Your task to perform on an android device: allow notifications from all sites in the chrome app Image 0: 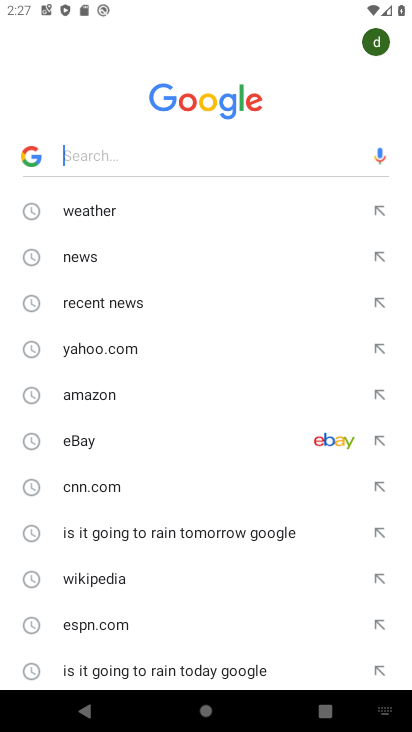
Step 0: press home button
Your task to perform on an android device: allow notifications from all sites in the chrome app Image 1: 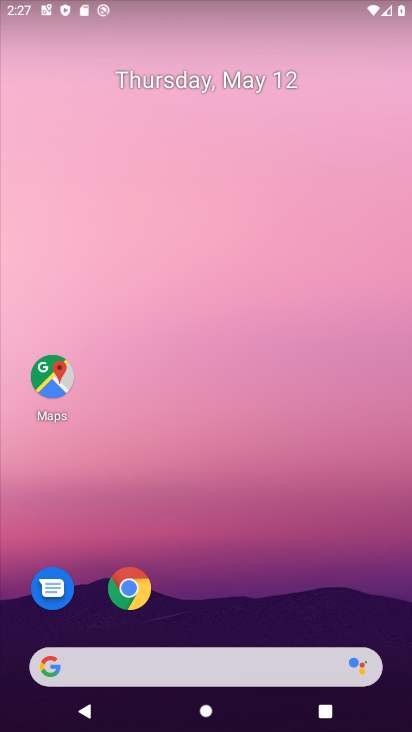
Step 1: click (128, 580)
Your task to perform on an android device: allow notifications from all sites in the chrome app Image 2: 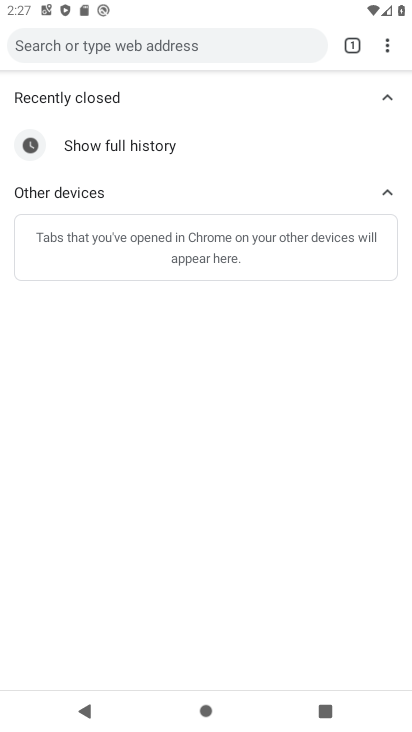
Step 2: drag from (392, 51) to (207, 393)
Your task to perform on an android device: allow notifications from all sites in the chrome app Image 3: 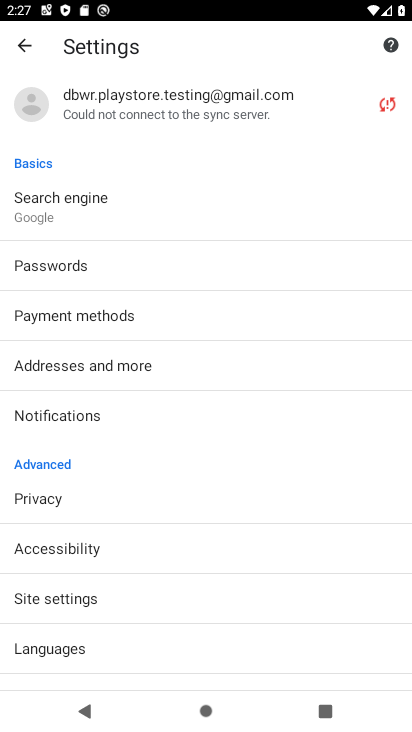
Step 3: click (86, 601)
Your task to perform on an android device: allow notifications from all sites in the chrome app Image 4: 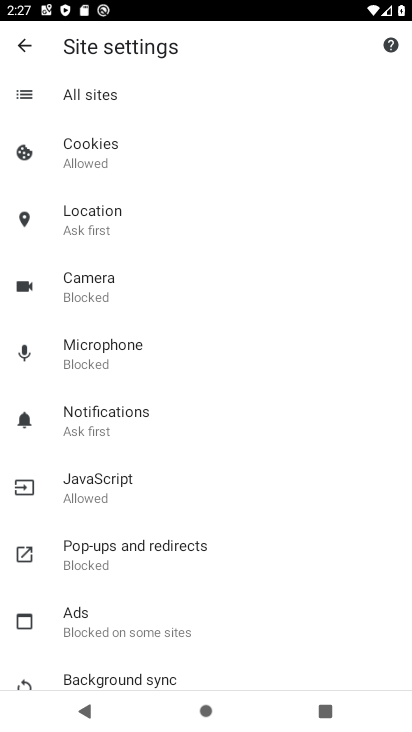
Step 4: click (82, 408)
Your task to perform on an android device: allow notifications from all sites in the chrome app Image 5: 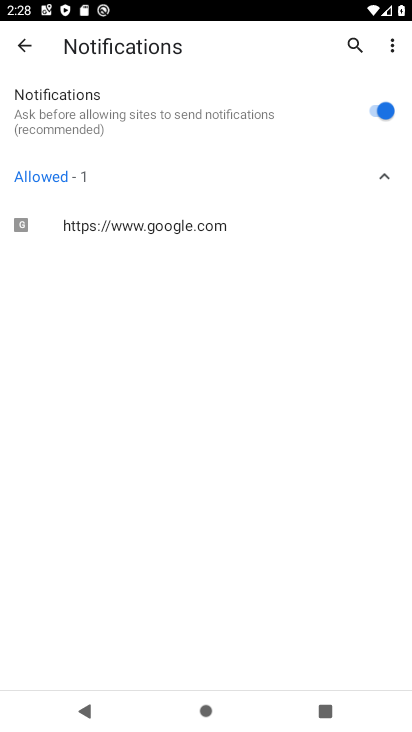
Step 5: task complete